Your task to perform on an android device: change keyboard looks Image 0: 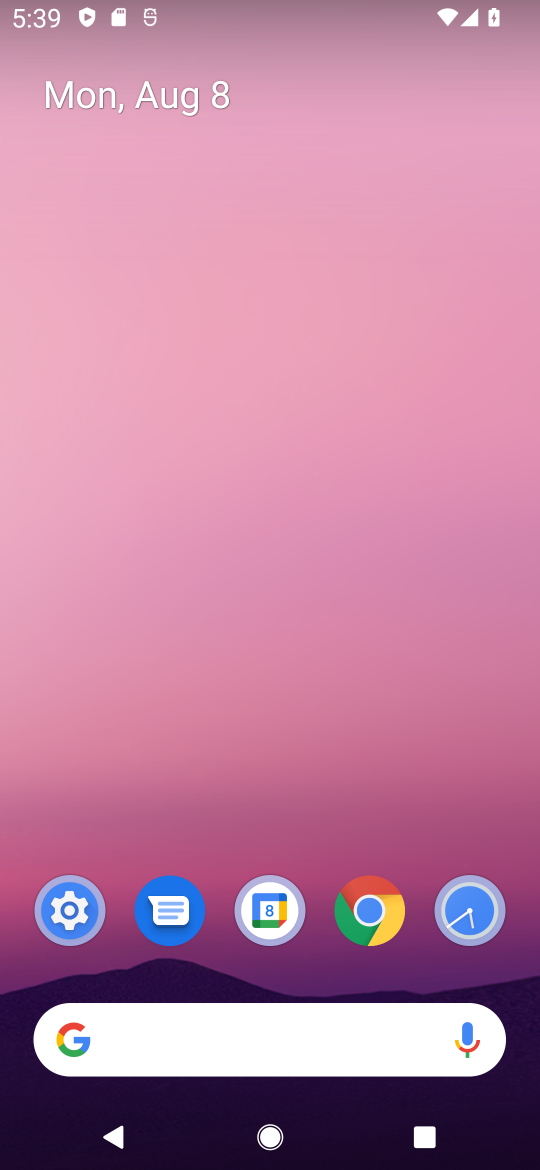
Step 0: drag from (248, 1052) to (289, 492)
Your task to perform on an android device: change keyboard looks Image 1: 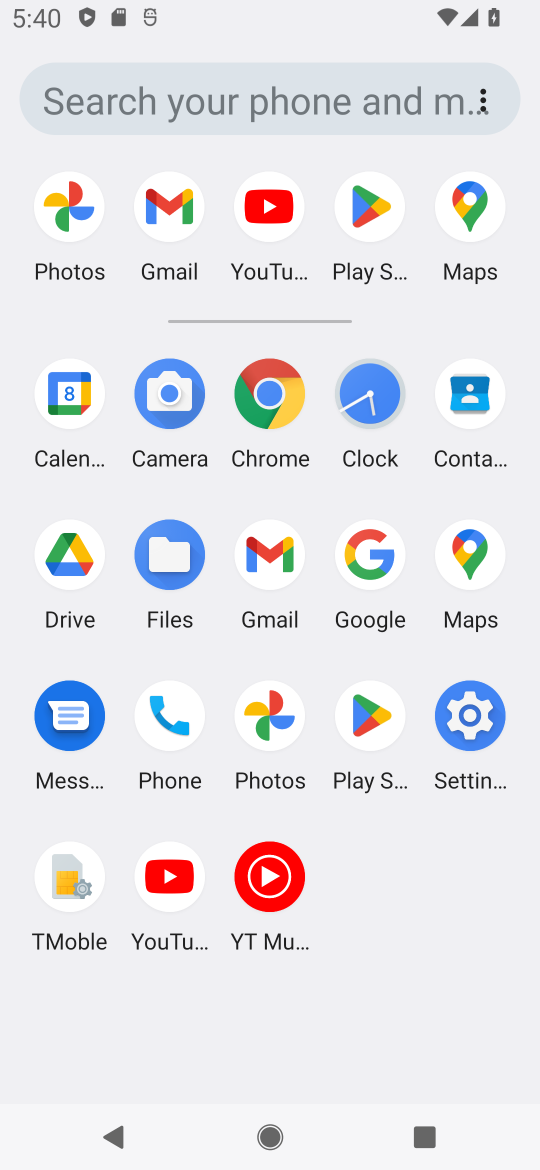
Step 1: click (467, 717)
Your task to perform on an android device: change keyboard looks Image 2: 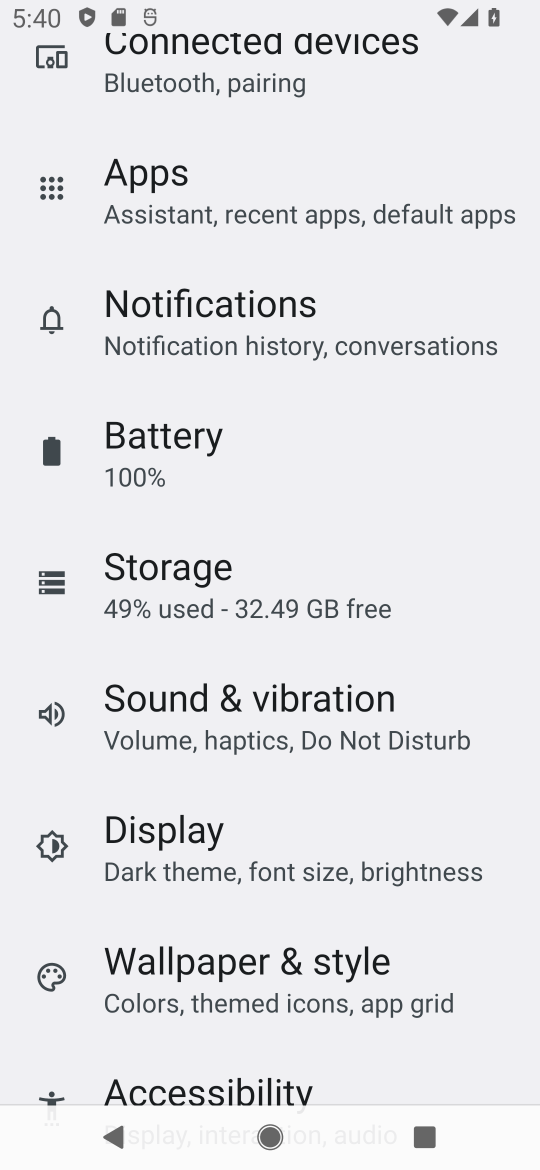
Step 2: drag from (301, 825) to (317, 637)
Your task to perform on an android device: change keyboard looks Image 3: 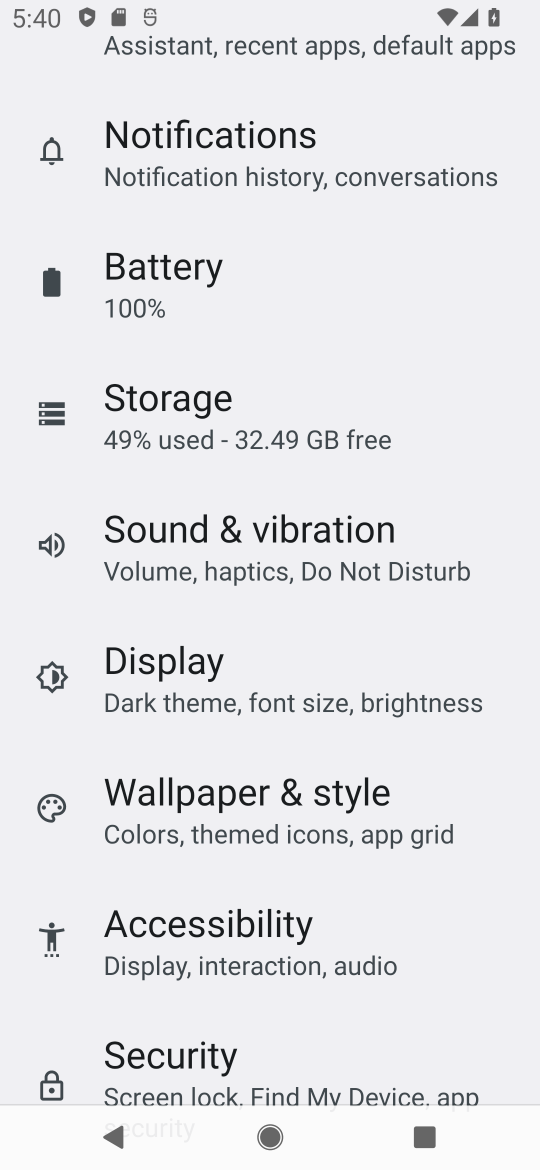
Step 3: drag from (220, 859) to (262, 731)
Your task to perform on an android device: change keyboard looks Image 4: 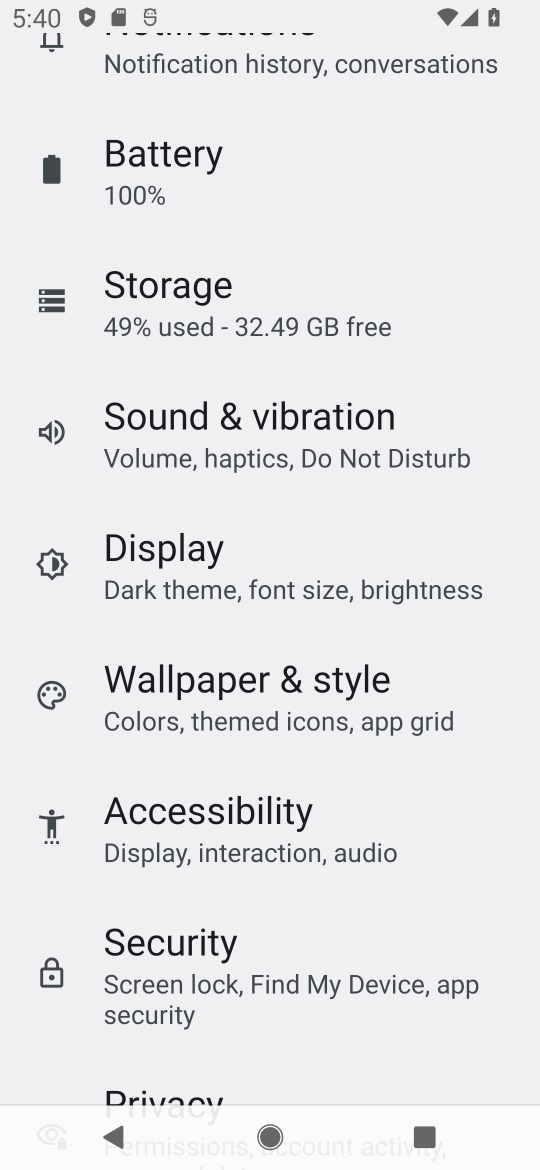
Step 4: drag from (233, 883) to (263, 724)
Your task to perform on an android device: change keyboard looks Image 5: 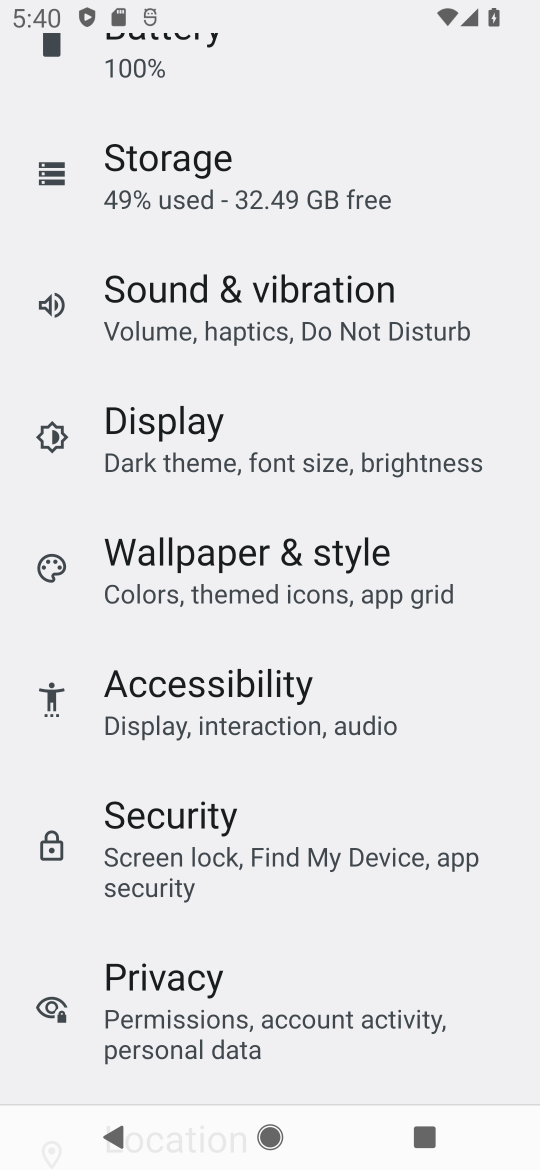
Step 5: drag from (249, 906) to (313, 748)
Your task to perform on an android device: change keyboard looks Image 6: 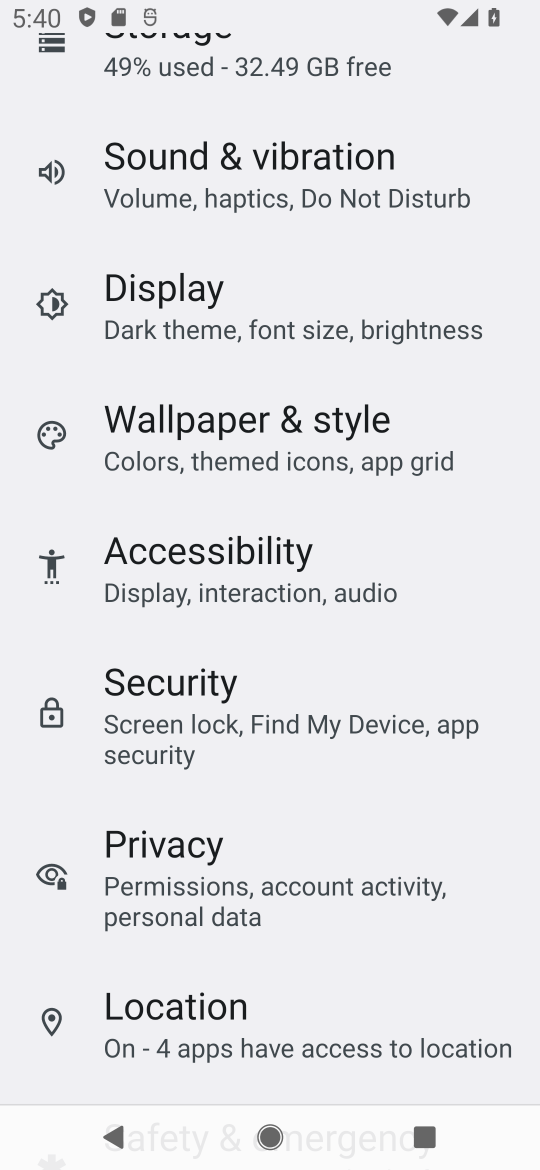
Step 6: drag from (194, 948) to (276, 774)
Your task to perform on an android device: change keyboard looks Image 7: 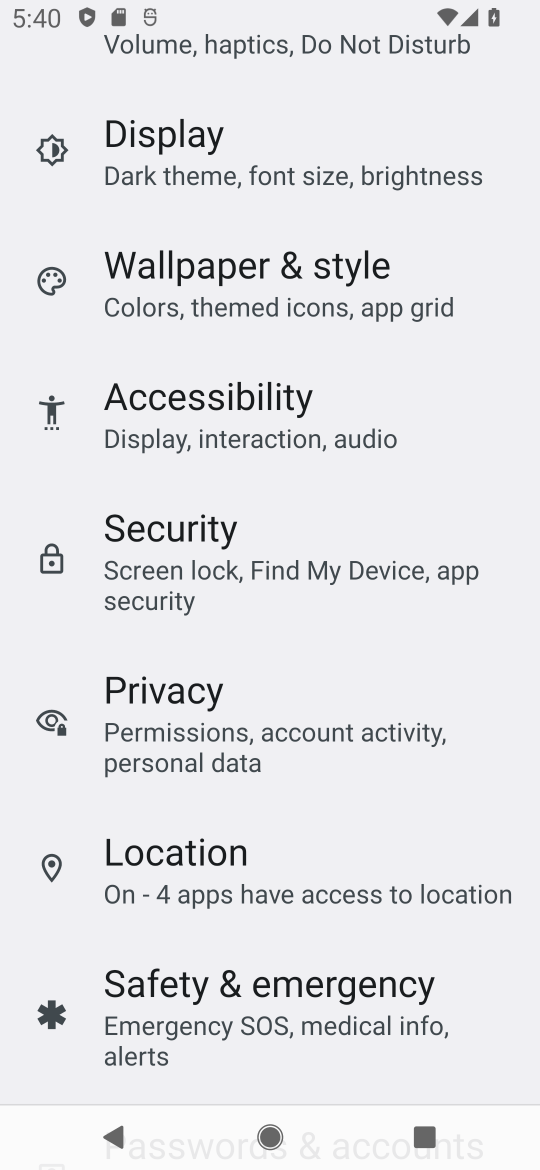
Step 7: drag from (161, 920) to (303, 725)
Your task to perform on an android device: change keyboard looks Image 8: 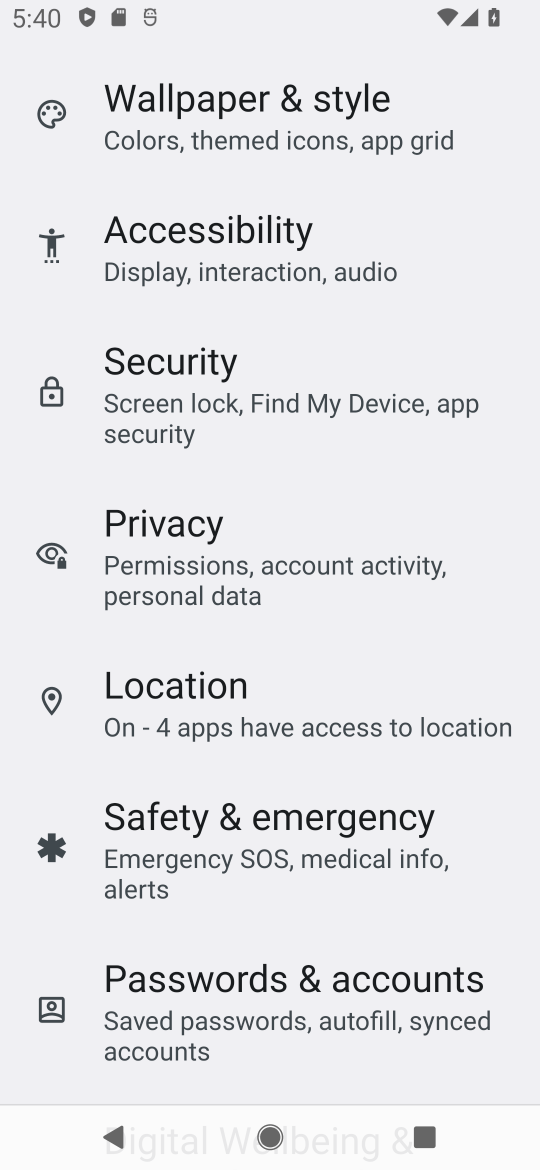
Step 8: drag from (125, 939) to (210, 785)
Your task to perform on an android device: change keyboard looks Image 9: 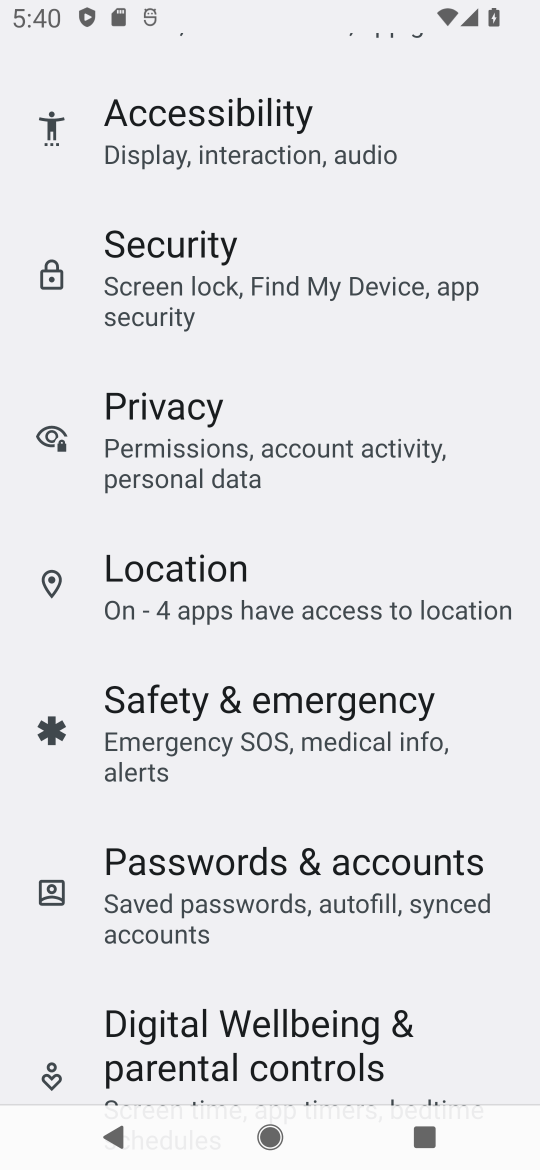
Step 9: drag from (136, 945) to (242, 791)
Your task to perform on an android device: change keyboard looks Image 10: 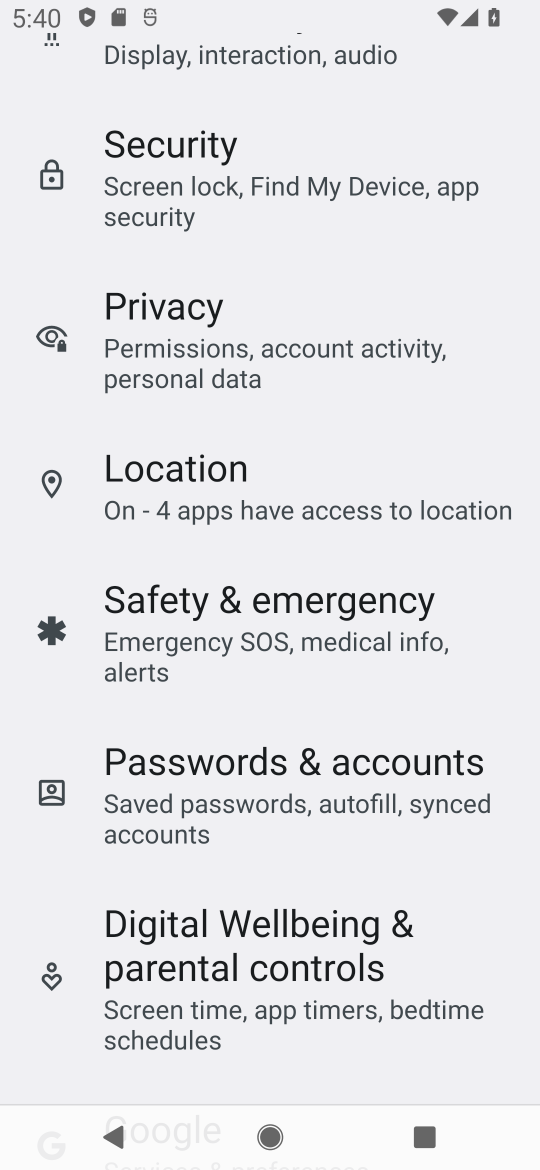
Step 10: drag from (73, 1068) to (267, 754)
Your task to perform on an android device: change keyboard looks Image 11: 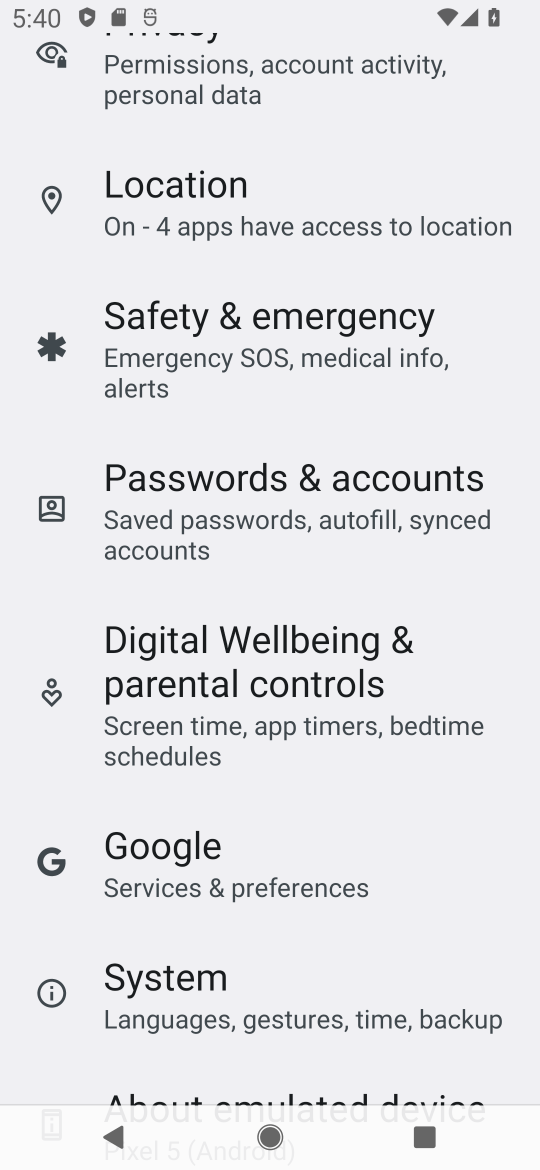
Step 11: click (192, 1001)
Your task to perform on an android device: change keyboard looks Image 12: 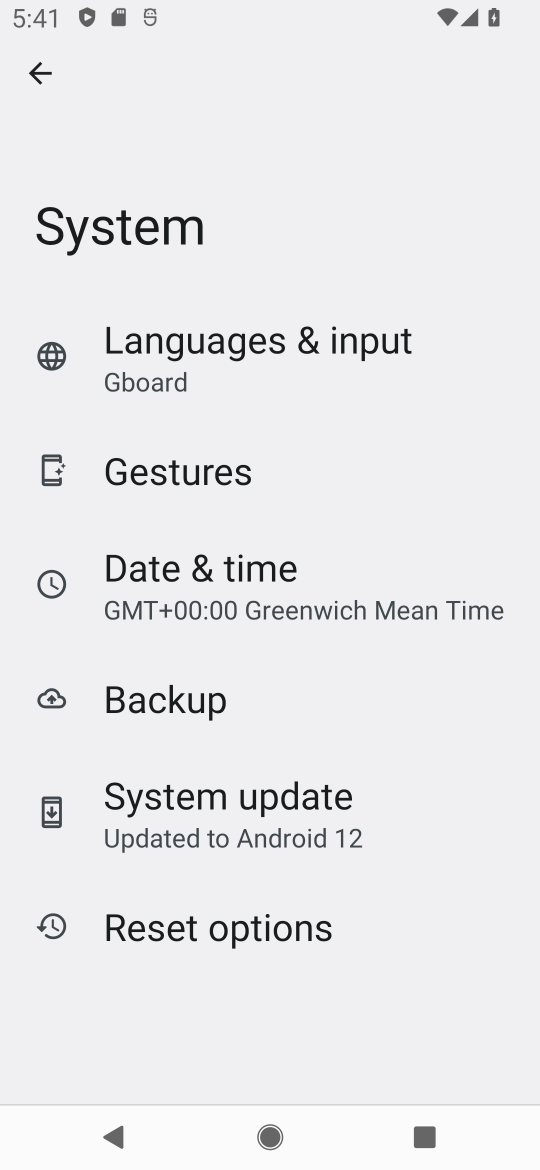
Step 12: click (161, 362)
Your task to perform on an android device: change keyboard looks Image 13: 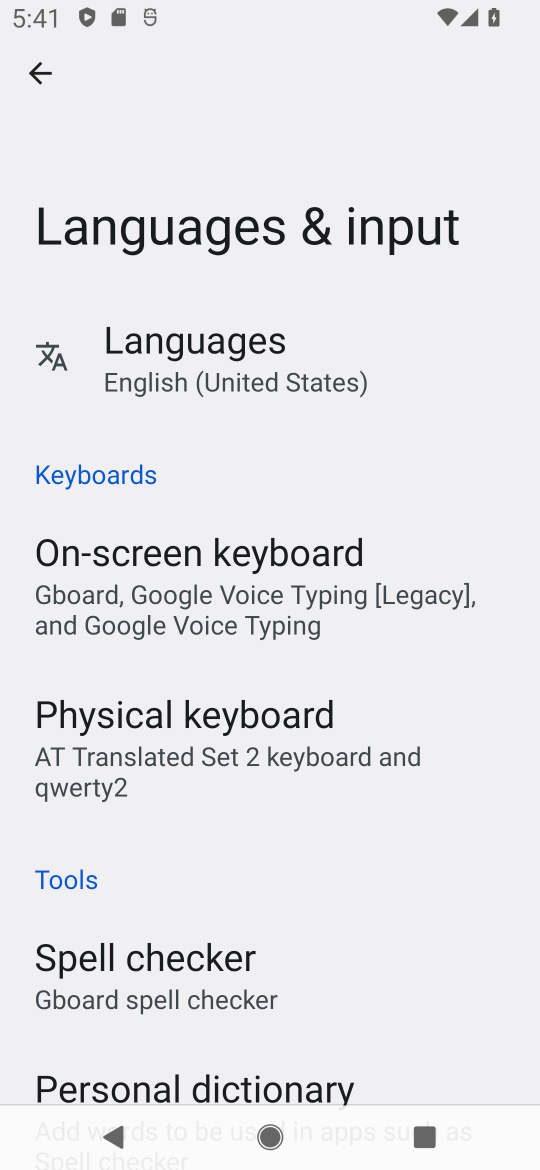
Step 13: click (245, 590)
Your task to perform on an android device: change keyboard looks Image 14: 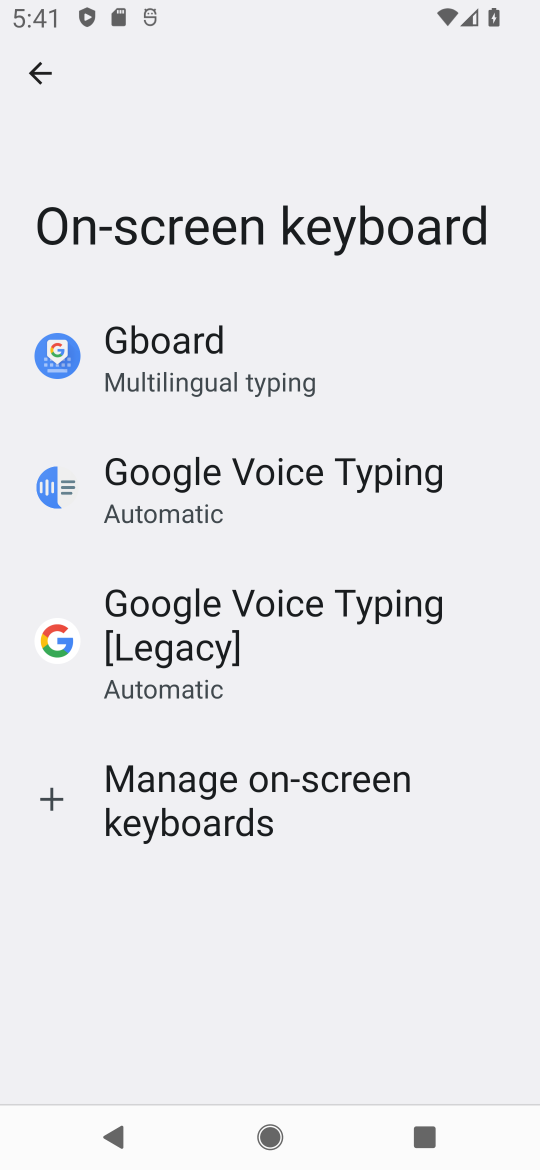
Step 14: click (165, 347)
Your task to perform on an android device: change keyboard looks Image 15: 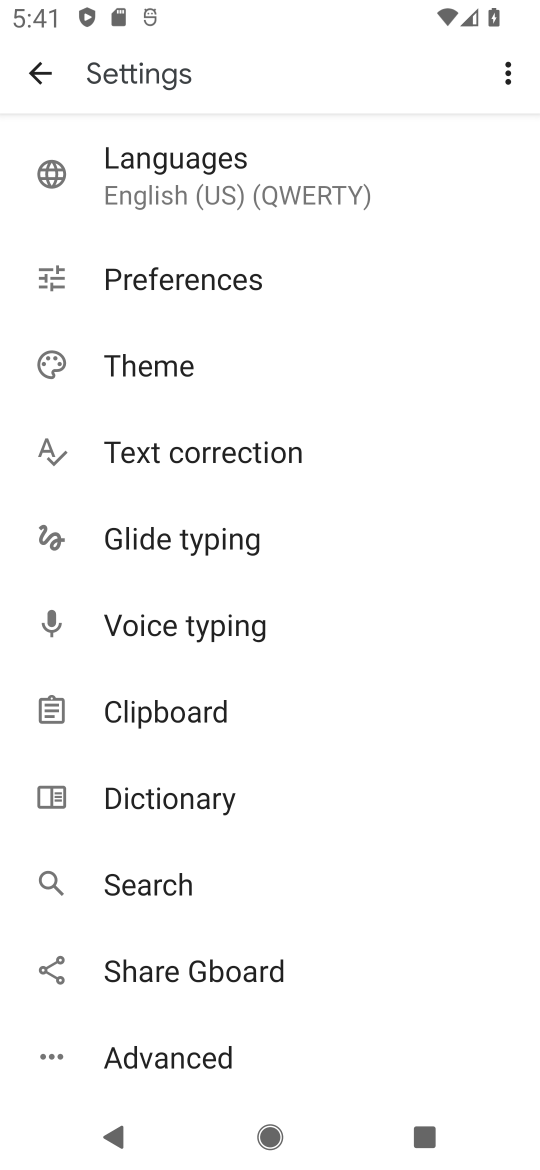
Step 15: click (168, 367)
Your task to perform on an android device: change keyboard looks Image 16: 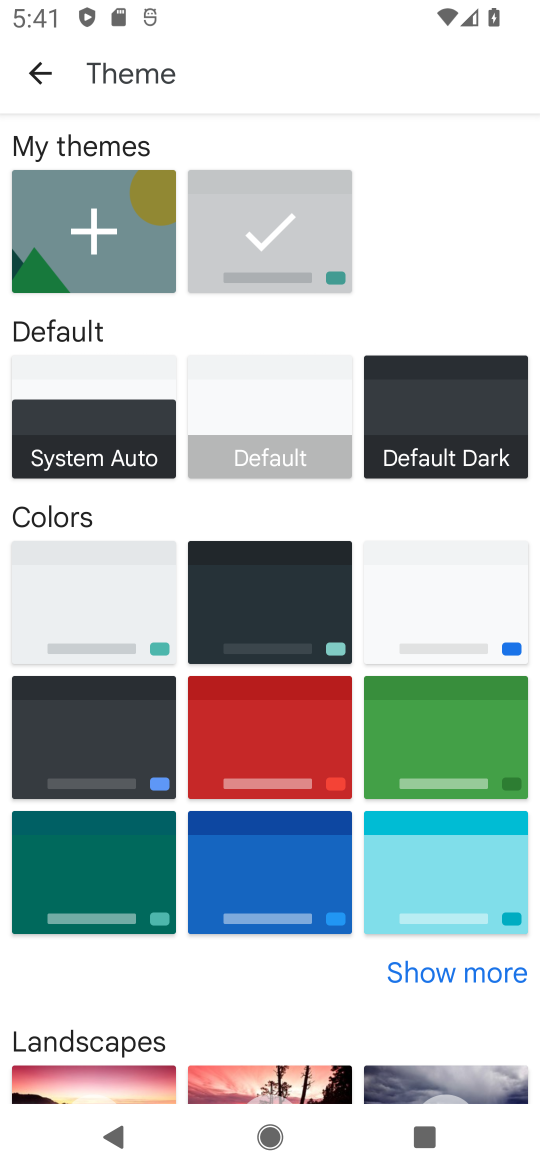
Step 16: click (119, 589)
Your task to perform on an android device: change keyboard looks Image 17: 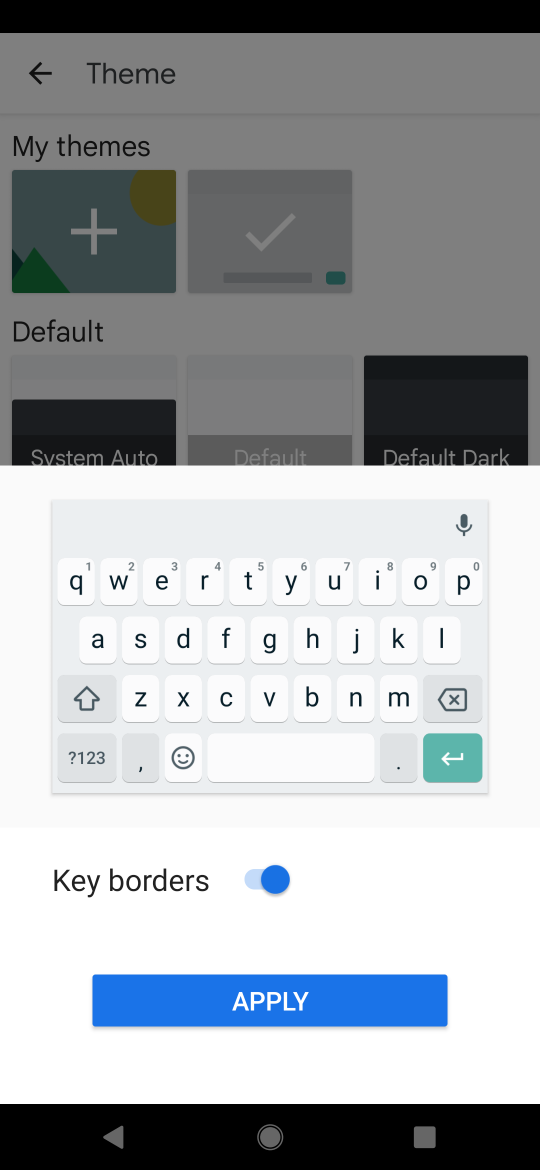
Step 17: click (305, 994)
Your task to perform on an android device: change keyboard looks Image 18: 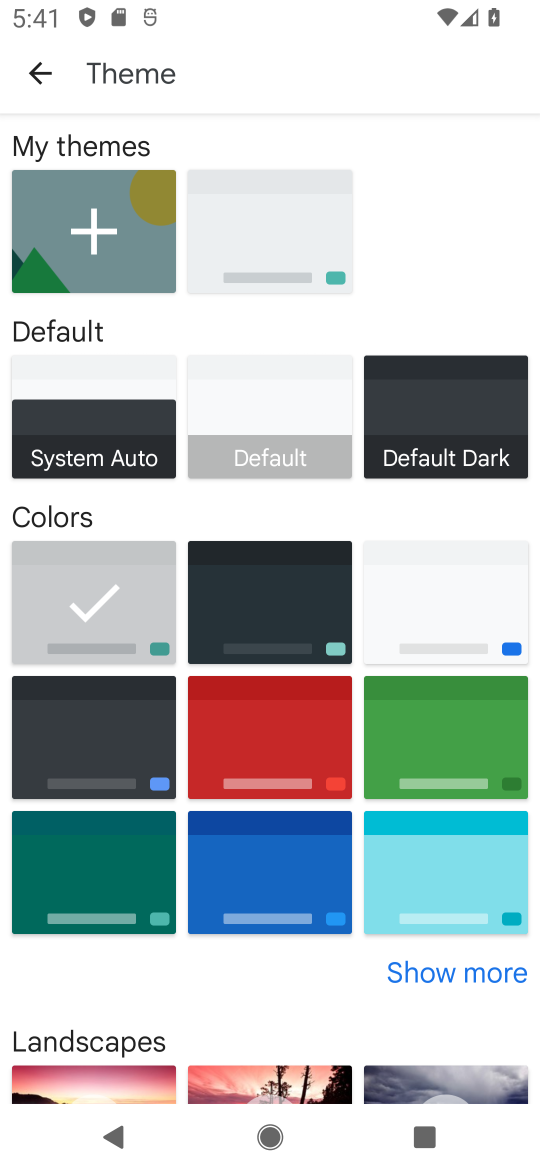
Step 18: task complete